Your task to perform on an android device: change timer sound Image 0: 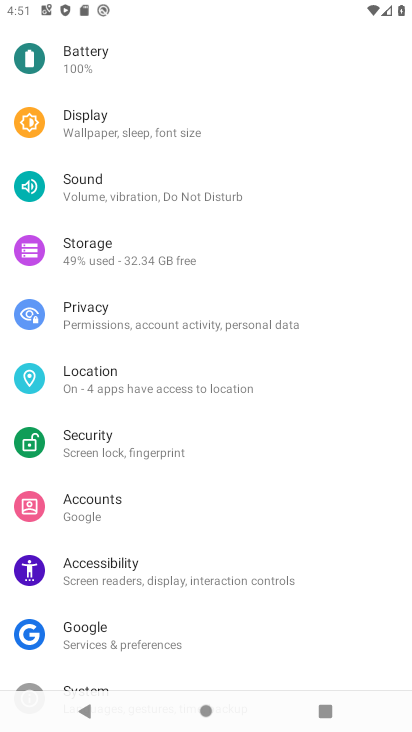
Step 0: click (153, 201)
Your task to perform on an android device: change timer sound Image 1: 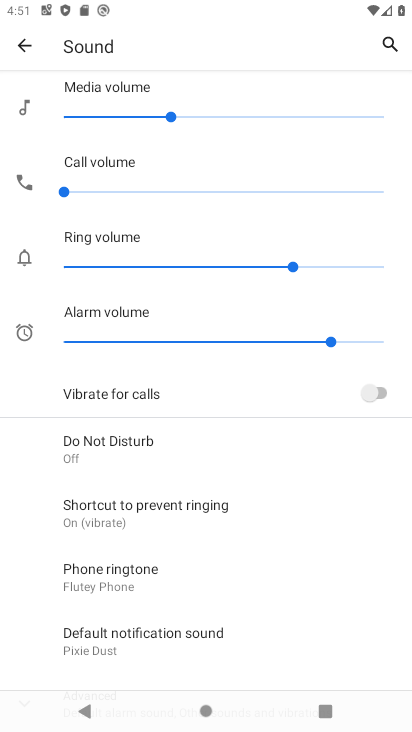
Step 1: press home button
Your task to perform on an android device: change timer sound Image 2: 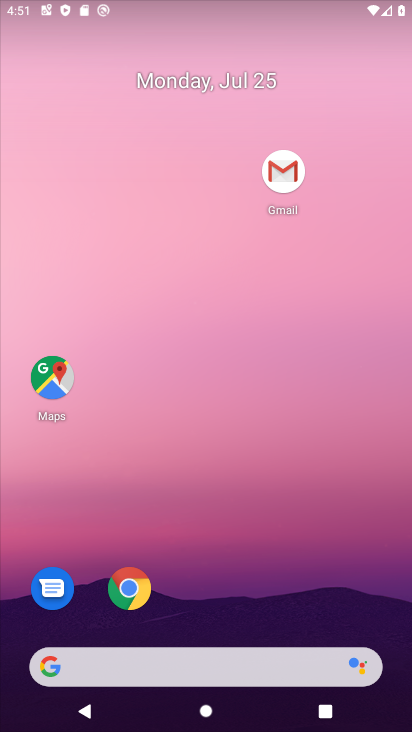
Step 2: drag from (284, 552) to (268, 114)
Your task to perform on an android device: change timer sound Image 3: 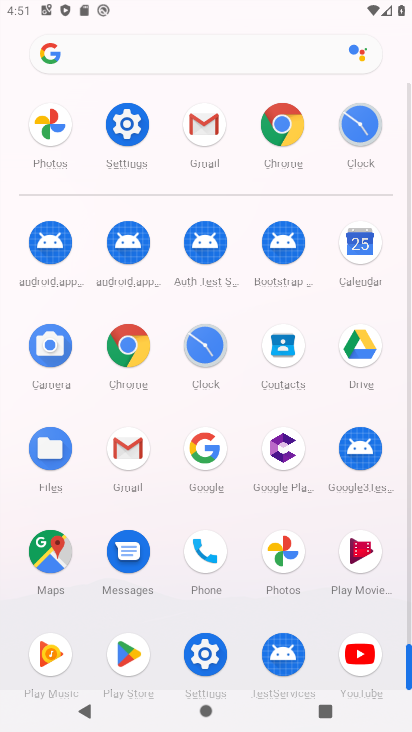
Step 3: click (355, 130)
Your task to perform on an android device: change timer sound Image 4: 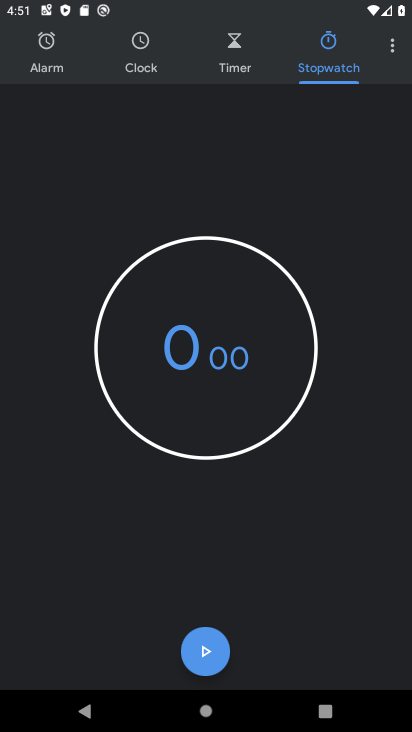
Step 4: click (395, 40)
Your task to perform on an android device: change timer sound Image 5: 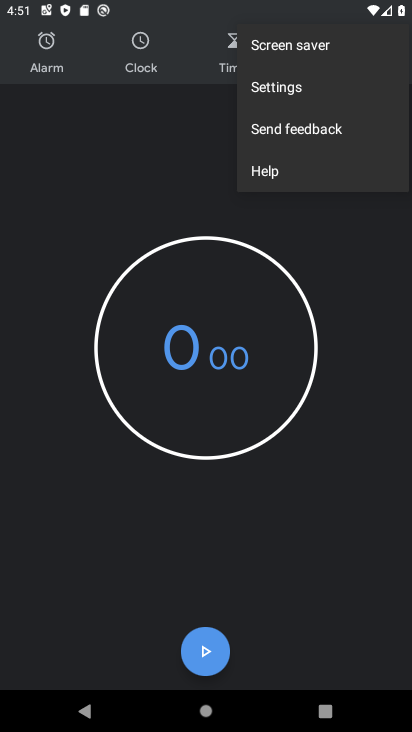
Step 5: click (294, 85)
Your task to perform on an android device: change timer sound Image 6: 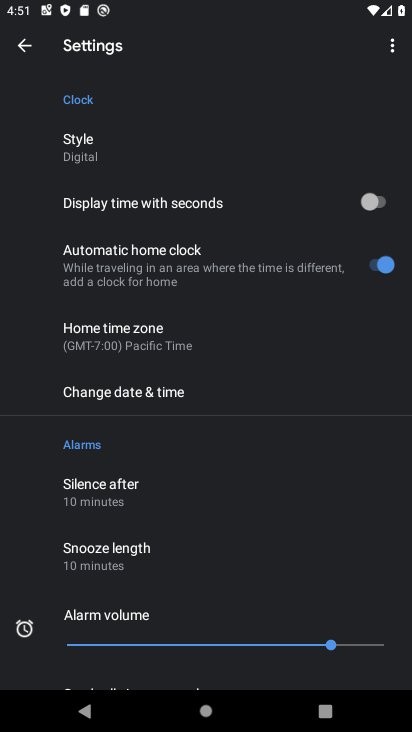
Step 6: drag from (259, 610) to (291, 122)
Your task to perform on an android device: change timer sound Image 7: 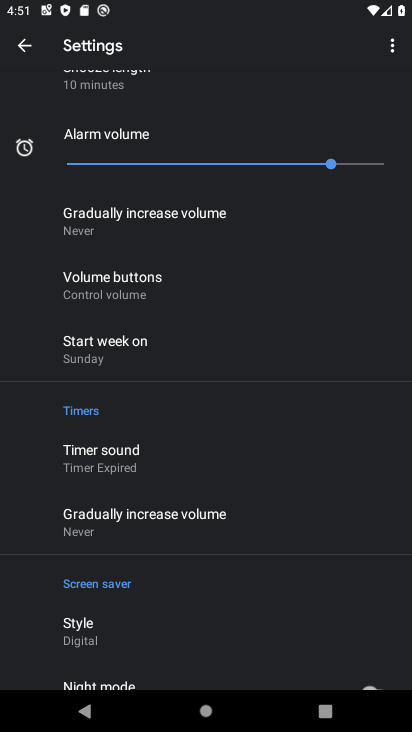
Step 7: click (127, 467)
Your task to perform on an android device: change timer sound Image 8: 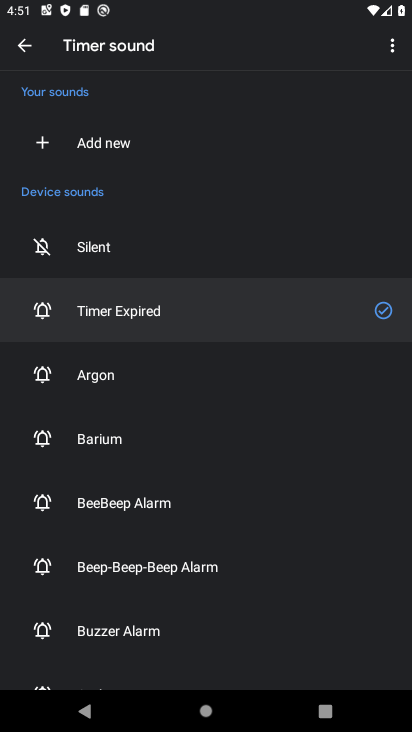
Step 8: click (125, 387)
Your task to perform on an android device: change timer sound Image 9: 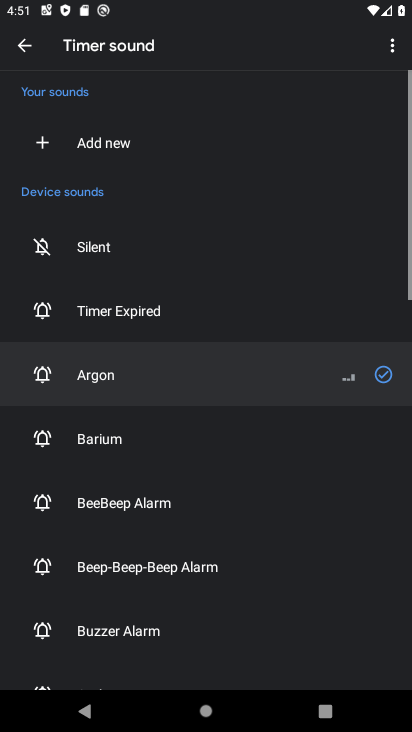
Step 9: task complete